Your task to perform on an android device: What's on my calendar tomorrow? Image 0: 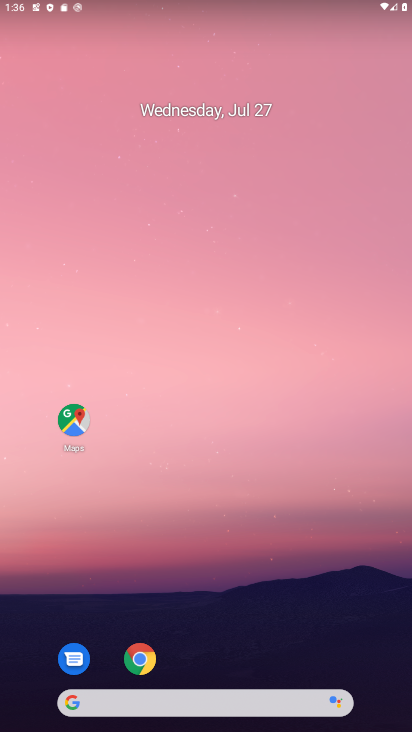
Step 0: drag from (303, 614) to (258, 53)
Your task to perform on an android device: What's on my calendar tomorrow? Image 1: 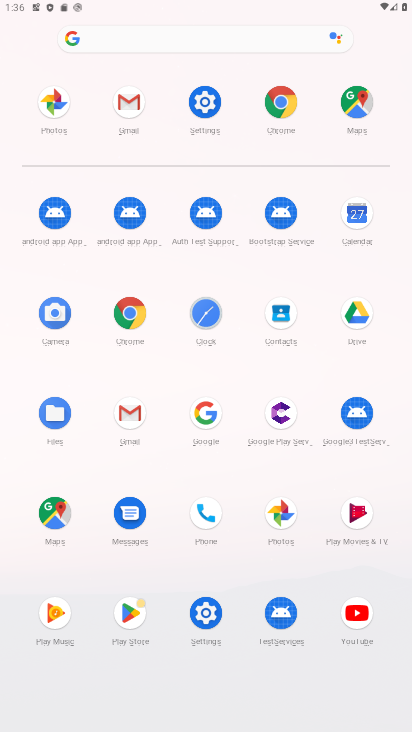
Step 1: click (361, 214)
Your task to perform on an android device: What's on my calendar tomorrow? Image 2: 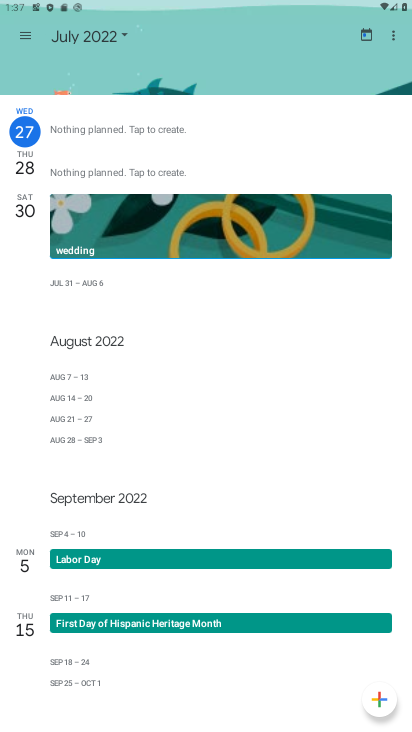
Step 2: click (112, 32)
Your task to perform on an android device: What's on my calendar tomorrow? Image 3: 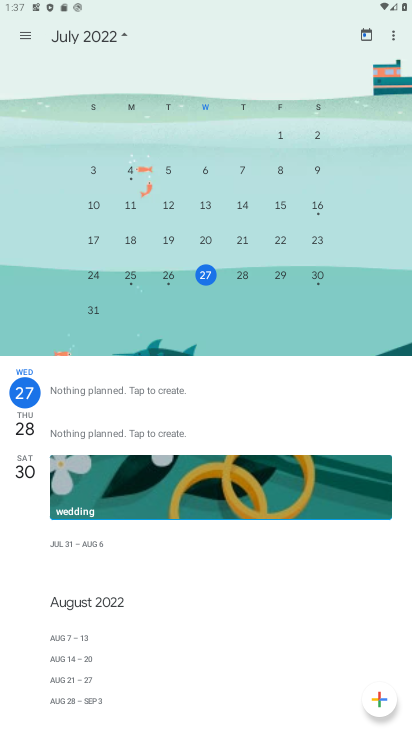
Step 3: click (242, 272)
Your task to perform on an android device: What's on my calendar tomorrow? Image 4: 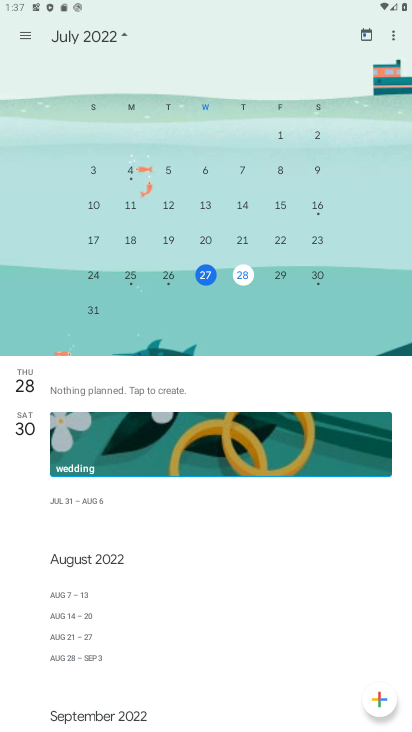
Step 4: click (57, 380)
Your task to perform on an android device: What's on my calendar tomorrow? Image 5: 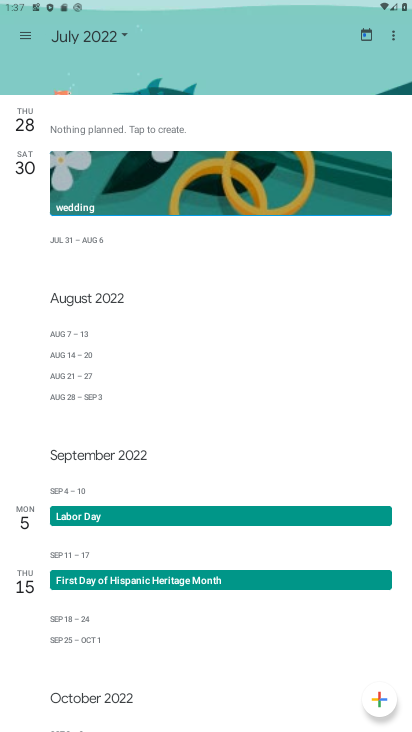
Step 5: click (15, 128)
Your task to perform on an android device: What's on my calendar tomorrow? Image 6: 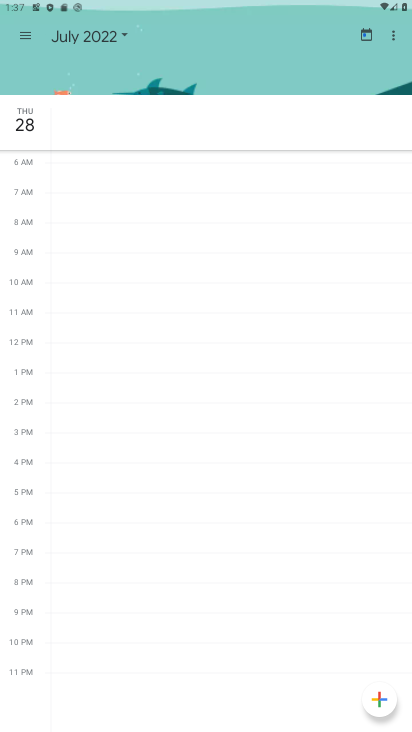
Step 6: task complete